Your task to perform on an android device: check google app version Image 0: 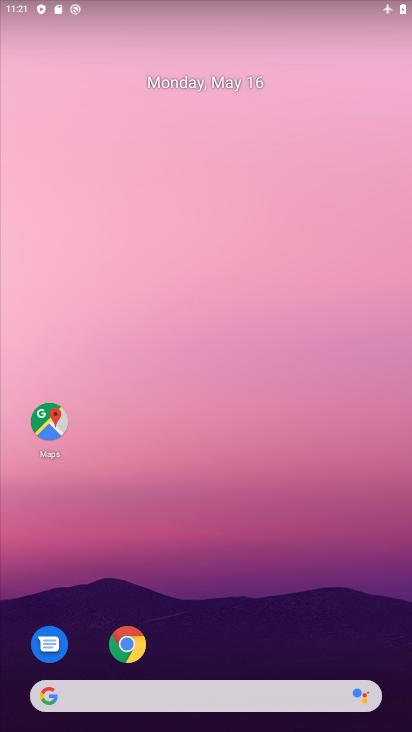
Step 0: drag from (231, 630) to (253, 220)
Your task to perform on an android device: check google app version Image 1: 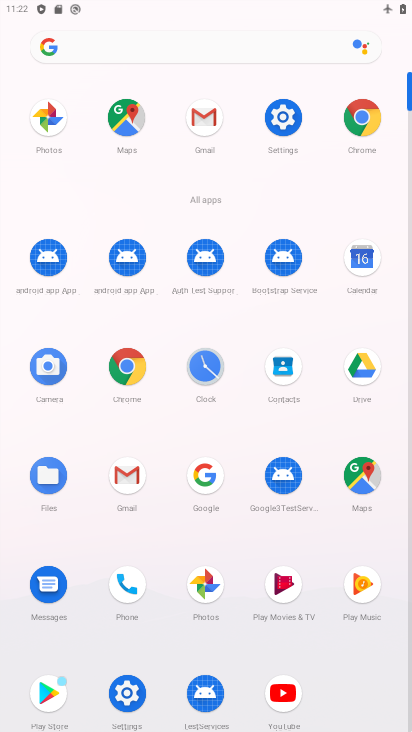
Step 1: click (208, 480)
Your task to perform on an android device: check google app version Image 2: 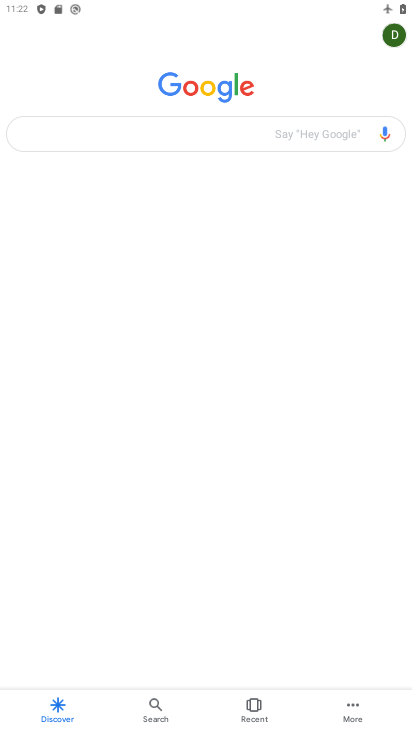
Step 2: click (356, 707)
Your task to perform on an android device: check google app version Image 3: 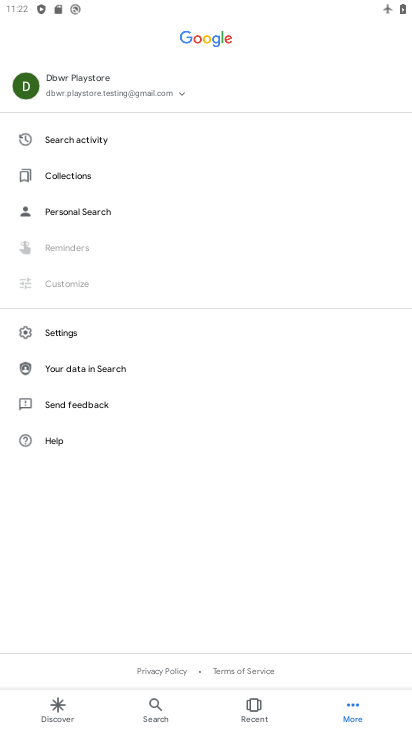
Step 3: click (66, 329)
Your task to perform on an android device: check google app version Image 4: 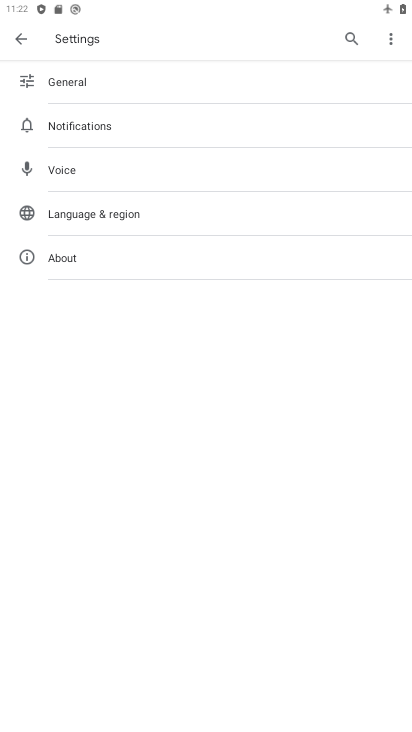
Step 4: click (82, 258)
Your task to perform on an android device: check google app version Image 5: 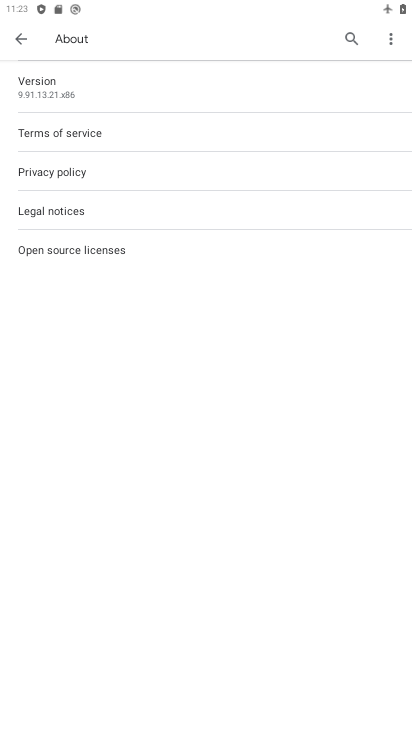
Step 5: task complete